Your task to perform on an android device: open a new tab in the chrome app Image 0: 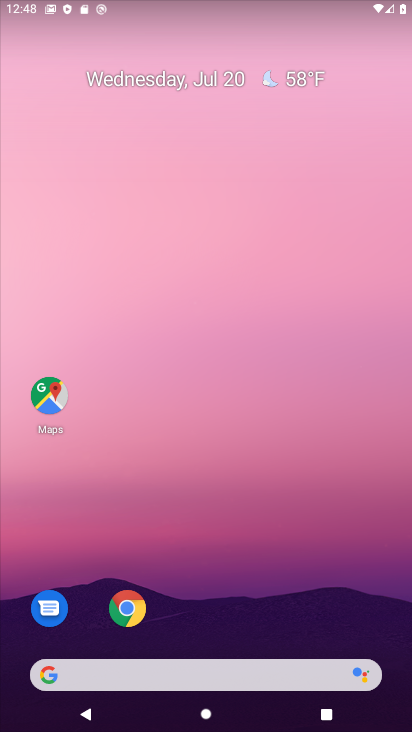
Step 0: drag from (256, 715) to (241, 213)
Your task to perform on an android device: open a new tab in the chrome app Image 1: 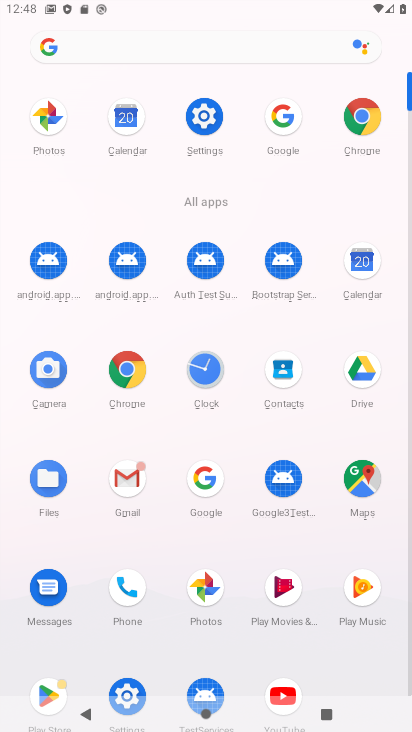
Step 1: click (127, 375)
Your task to perform on an android device: open a new tab in the chrome app Image 2: 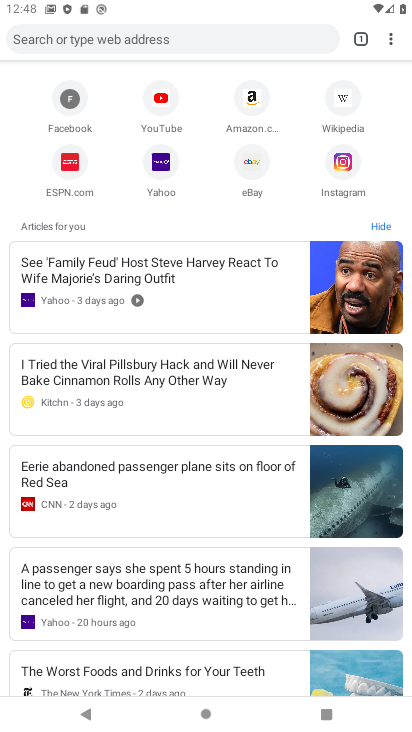
Step 2: click (391, 40)
Your task to perform on an android device: open a new tab in the chrome app Image 3: 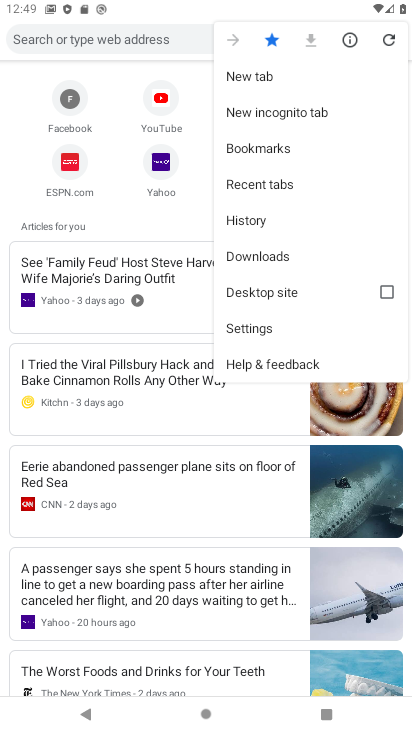
Step 3: click (259, 73)
Your task to perform on an android device: open a new tab in the chrome app Image 4: 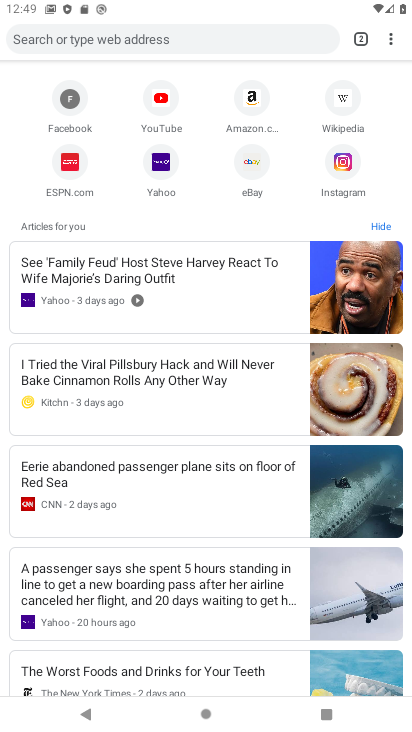
Step 4: task complete